Your task to perform on an android device: turn off notifications settings in the gmail app Image 0: 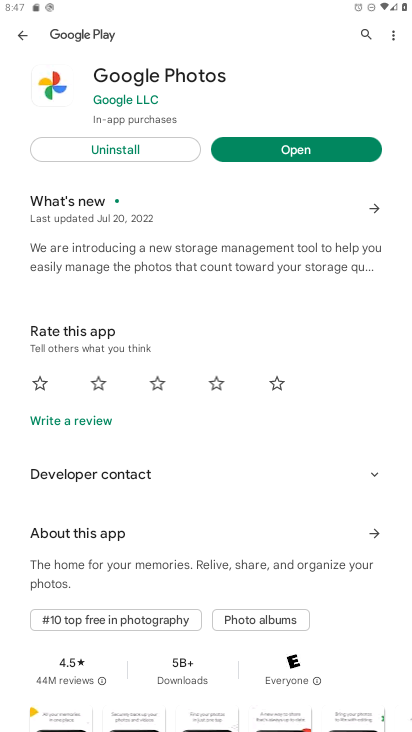
Step 0: press home button
Your task to perform on an android device: turn off notifications settings in the gmail app Image 1: 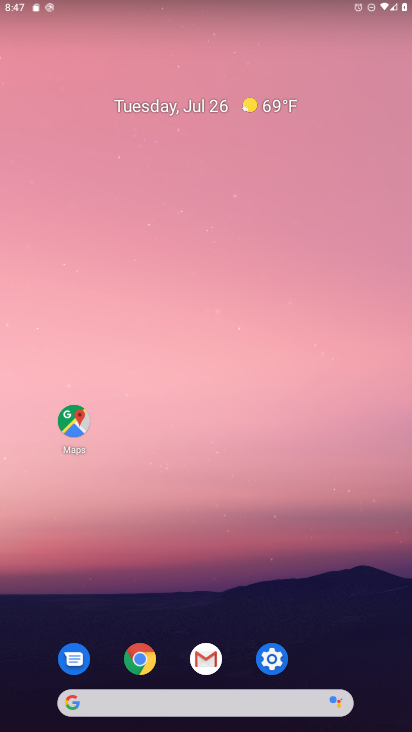
Step 1: click (206, 658)
Your task to perform on an android device: turn off notifications settings in the gmail app Image 2: 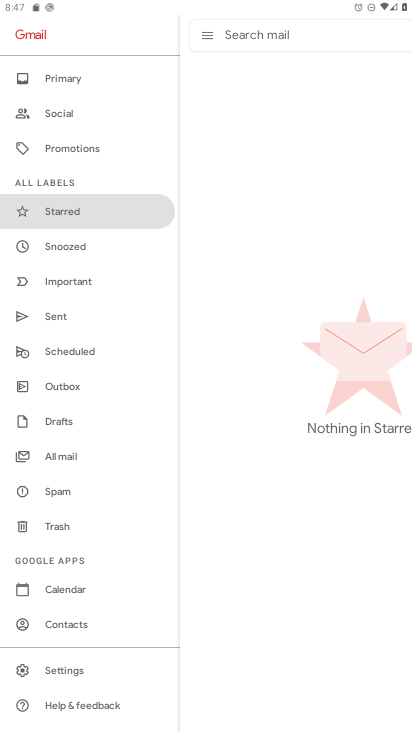
Step 2: click (80, 663)
Your task to perform on an android device: turn off notifications settings in the gmail app Image 3: 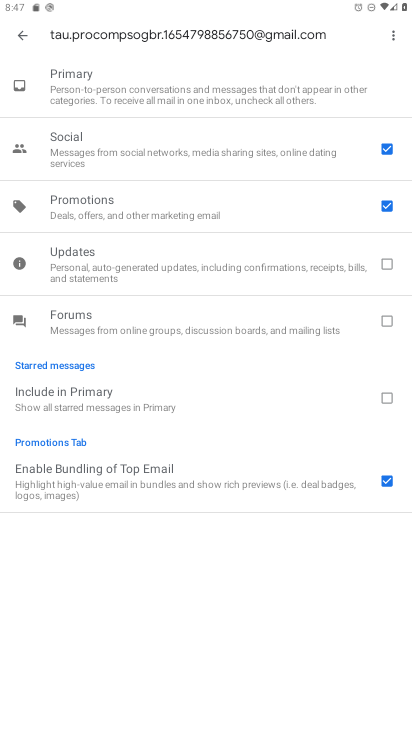
Step 3: click (25, 42)
Your task to perform on an android device: turn off notifications settings in the gmail app Image 4: 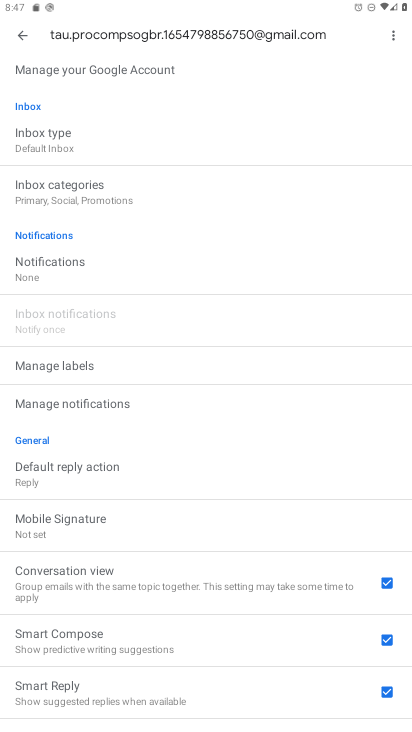
Step 4: click (71, 264)
Your task to perform on an android device: turn off notifications settings in the gmail app Image 5: 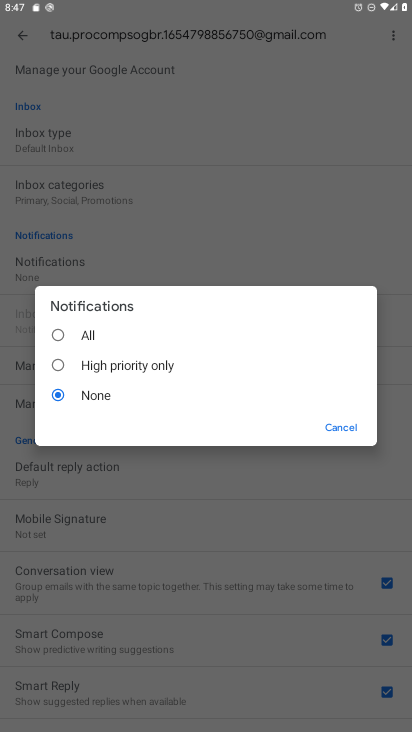
Step 5: task complete